Your task to perform on an android device: remove spam from my inbox in the gmail app Image 0: 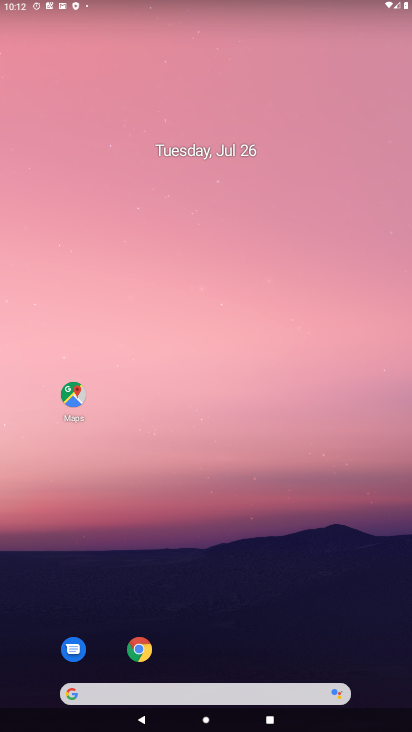
Step 0: drag from (186, 580) to (166, 128)
Your task to perform on an android device: remove spam from my inbox in the gmail app Image 1: 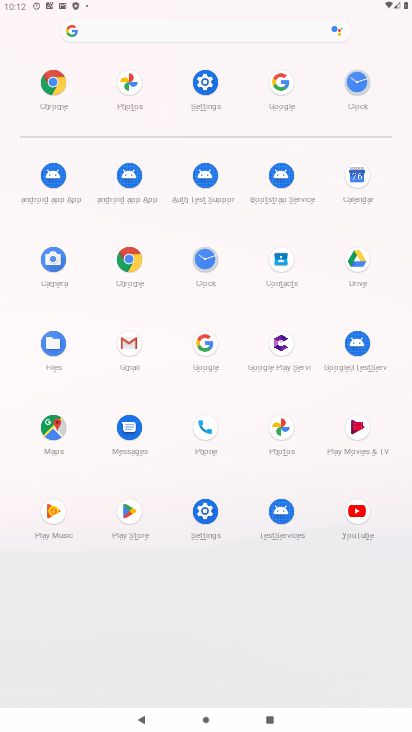
Step 1: click (122, 341)
Your task to perform on an android device: remove spam from my inbox in the gmail app Image 2: 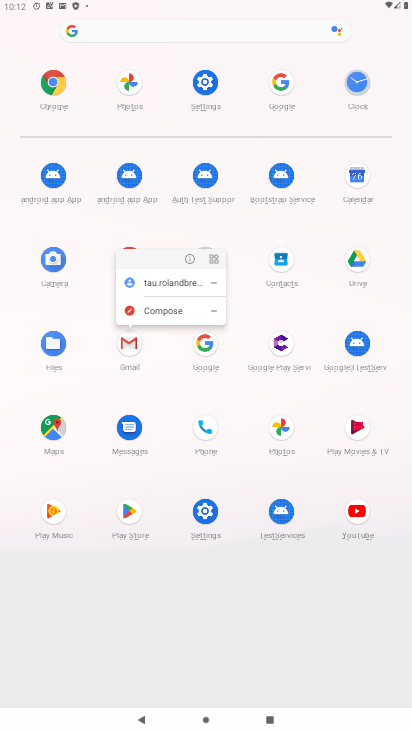
Step 2: click (190, 263)
Your task to perform on an android device: remove spam from my inbox in the gmail app Image 3: 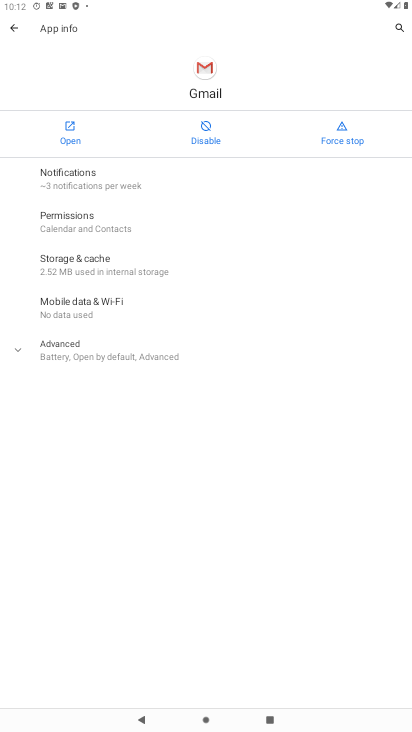
Step 3: click (72, 143)
Your task to perform on an android device: remove spam from my inbox in the gmail app Image 4: 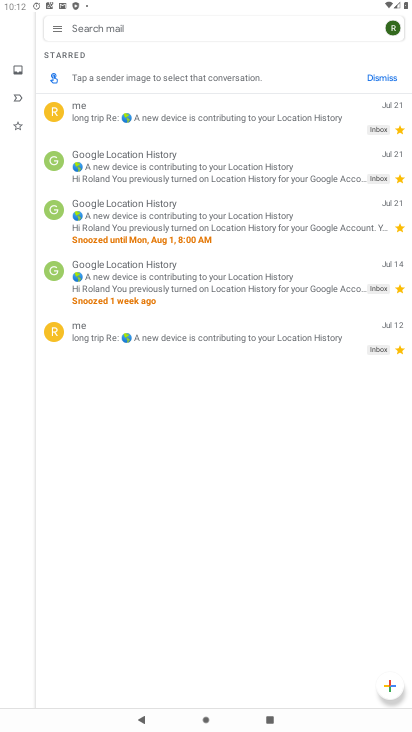
Step 4: click (54, 25)
Your task to perform on an android device: remove spam from my inbox in the gmail app Image 5: 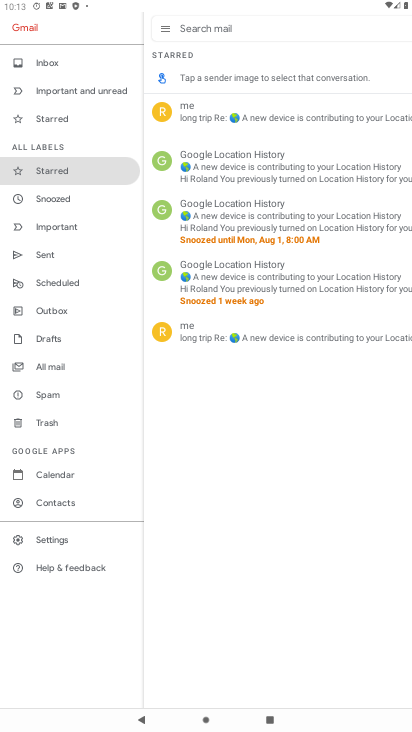
Step 5: click (39, 401)
Your task to perform on an android device: remove spam from my inbox in the gmail app Image 6: 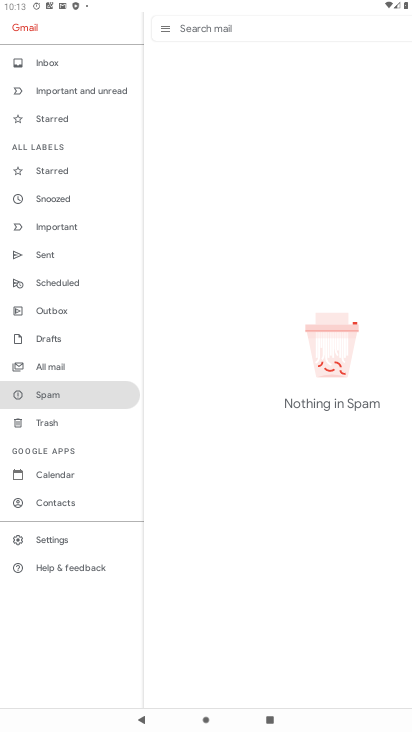
Step 6: task complete